Your task to perform on an android device: turn on priority inbox in the gmail app Image 0: 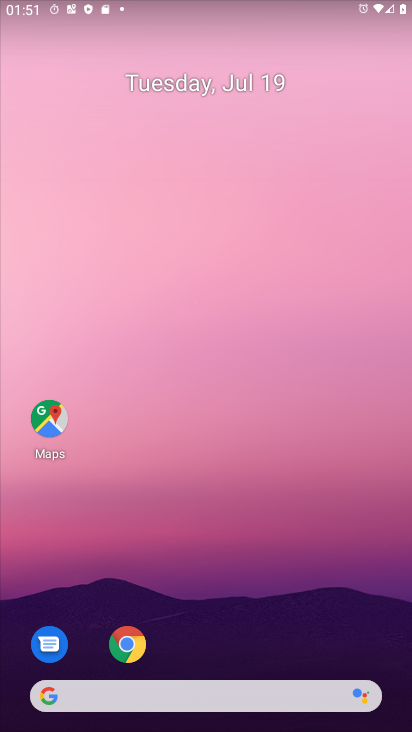
Step 0: drag from (250, 717) to (243, 279)
Your task to perform on an android device: turn on priority inbox in the gmail app Image 1: 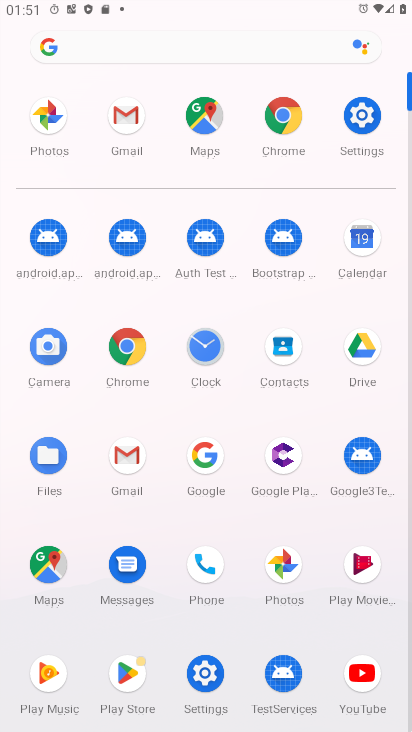
Step 1: click (123, 456)
Your task to perform on an android device: turn on priority inbox in the gmail app Image 2: 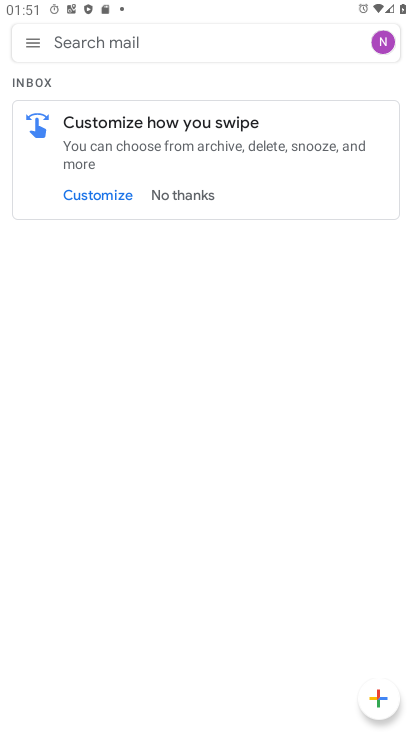
Step 2: click (24, 41)
Your task to perform on an android device: turn on priority inbox in the gmail app Image 3: 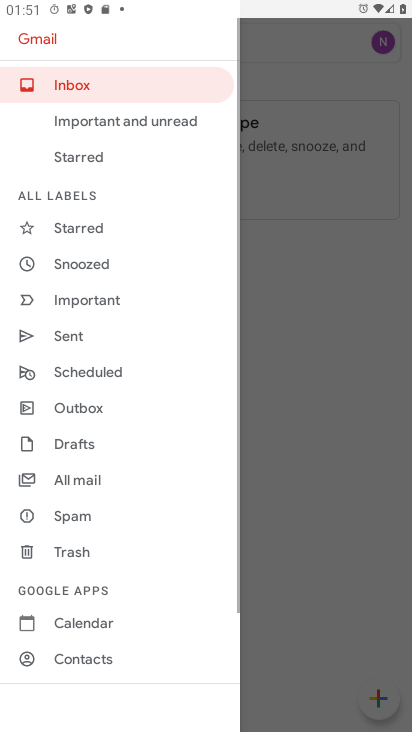
Step 3: drag from (94, 637) to (87, 422)
Your task to perform on an android device: turn on priority inbox in the gmail app Image 4: 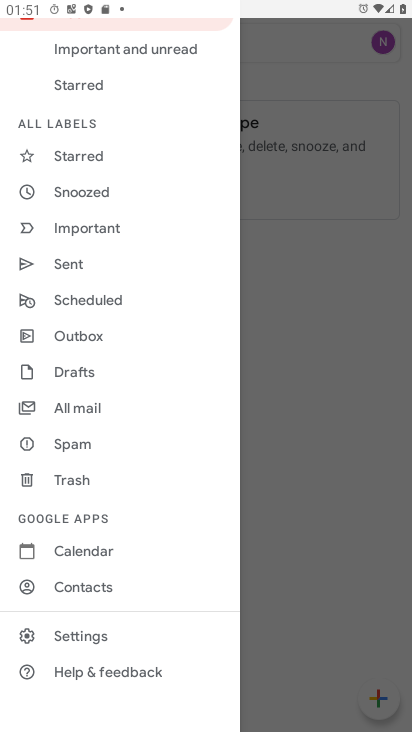
Step 4: click (94, 634)
Your task to perform on an android device: turn on priority inbox in the gmail app Image 5: 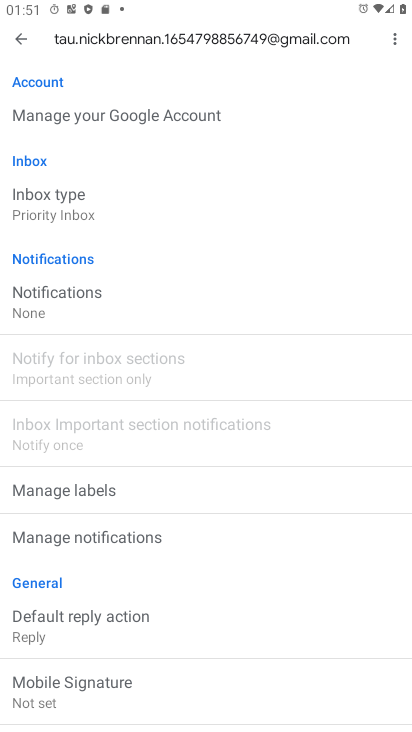
Step 5: task complete